Your task to perform on an android device: see sites visited before in the chrome app Image 0: 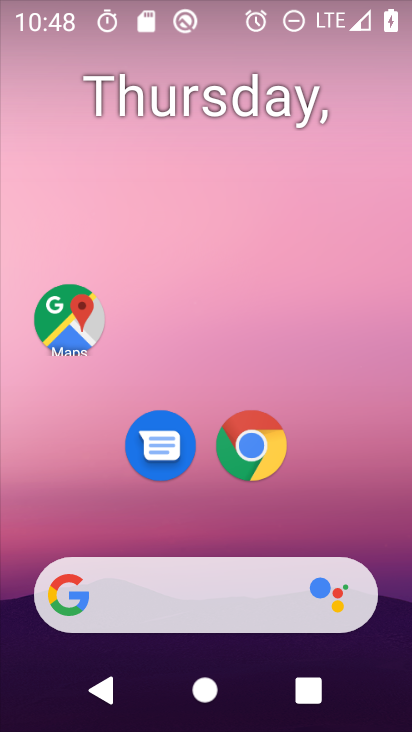
Step 0: drag from (209, 507) to (317, 113)
Your task to perform on an android device: see sites visited before in the chrome app Image 1: 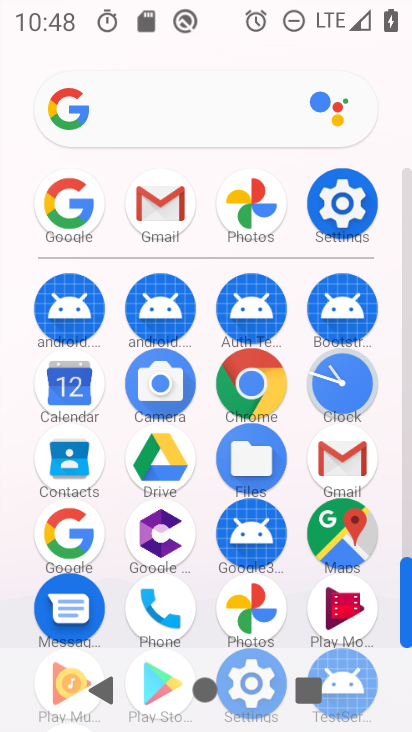
Step 1: click (247, 382)
Your task to perform on an android device: see sites visited before in the chrome app Image 2: 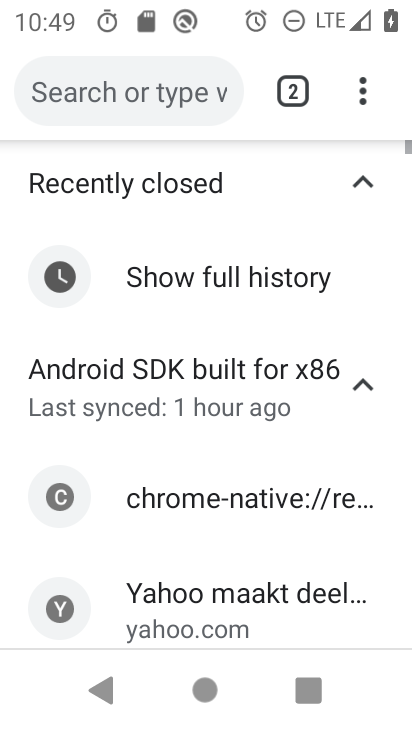
Step 2: click (367, 91)
Your task to perform on an android device: see sites visited before in the chrome app Image 3: 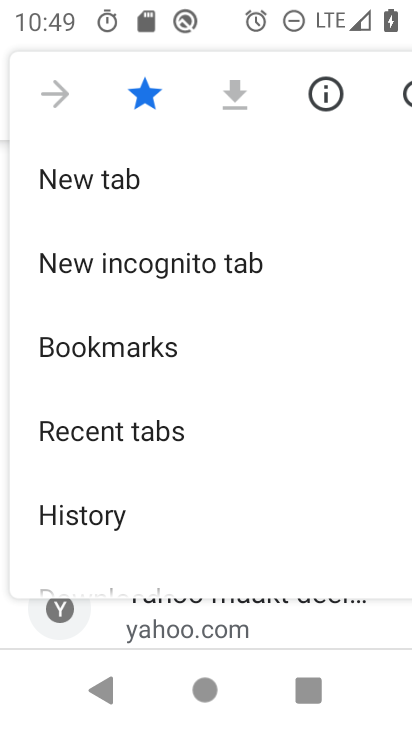
Step 3: drag from (146, 528) to (294, 117)
Your task to perform on an android device: see sites visited before in the chrome app Image 4: 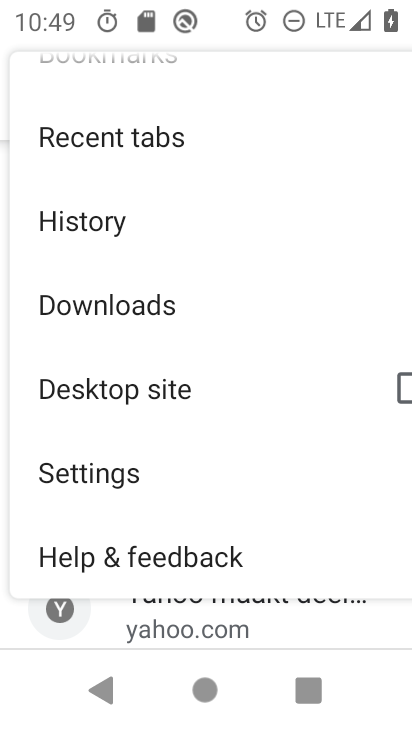
Step 4: click (132, 234)
Your task to perform on an android device: see sites visited before in the chrome app Image 5: 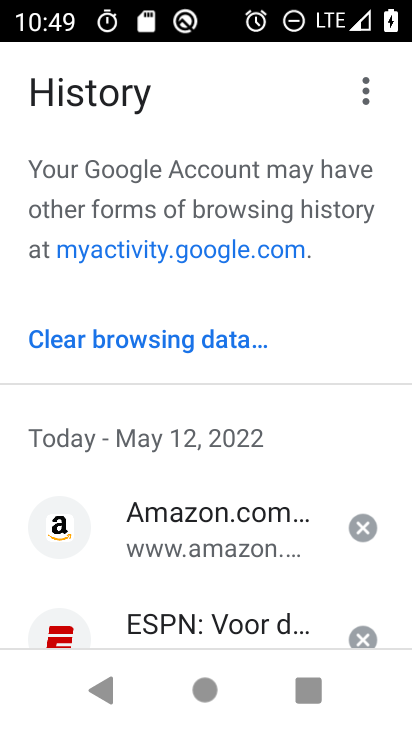
Step 5: task complete